Your task to perform on an android device: turn pop-ups off in chrome Image 0: 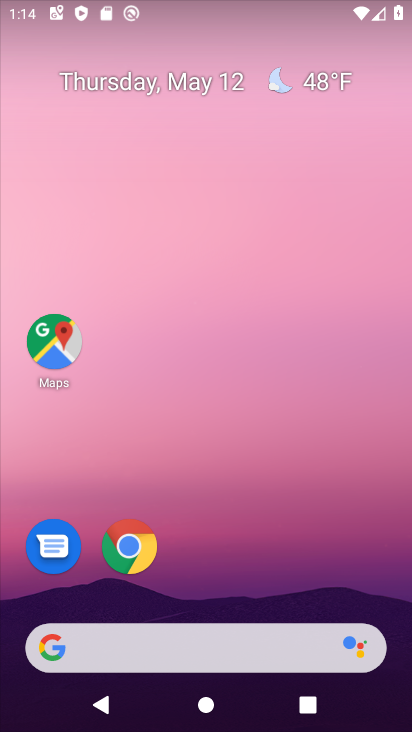
Step 0: click (134, 559)
Your task to perform on an android device: turn pop-ups off in chrome Image 1: 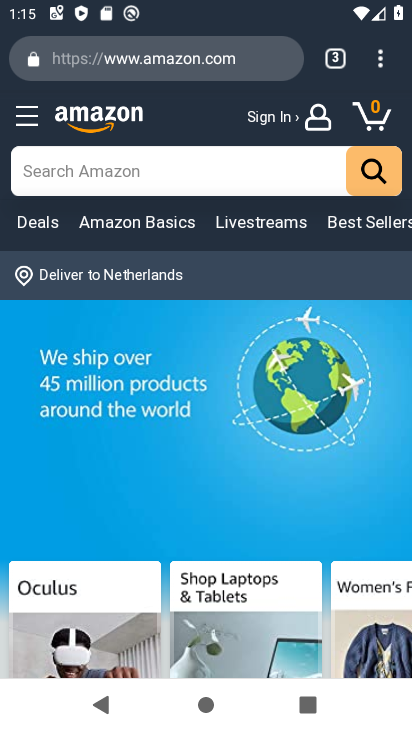
Step 1: drag from (379, 52) to (209, 582)
Your task to perform on an android device: turn pop-ups off in chrome Image 2: 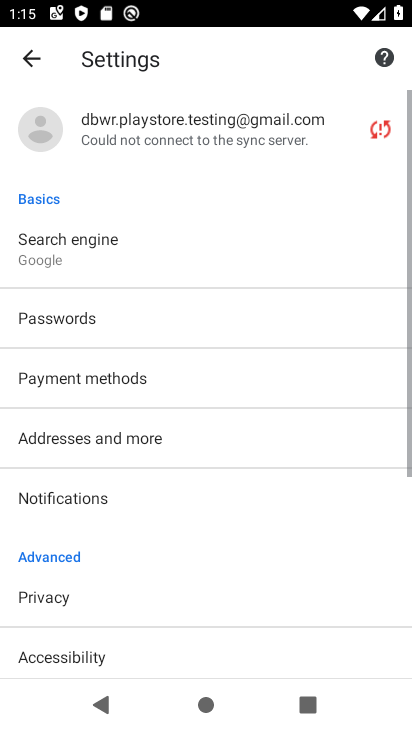
Step 2: drag from (154, 628) to (320, 187)
Your task to perform on an android device: turn pop-ups off in chrome Image 3: 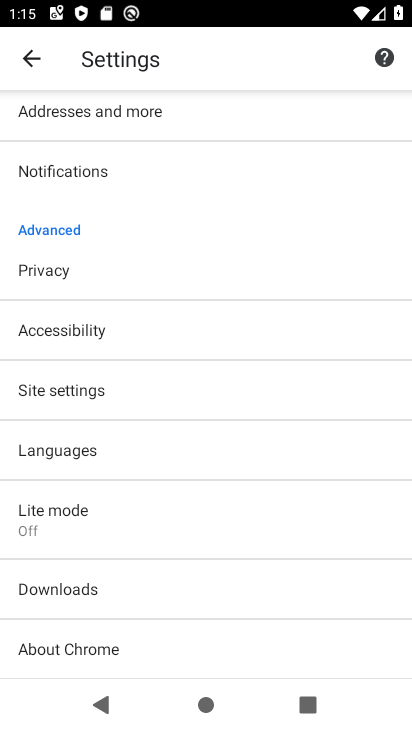
Step 3: click (93, 395)
Your task to perform on an android device: turn pop-ups off in chrome Image 4: 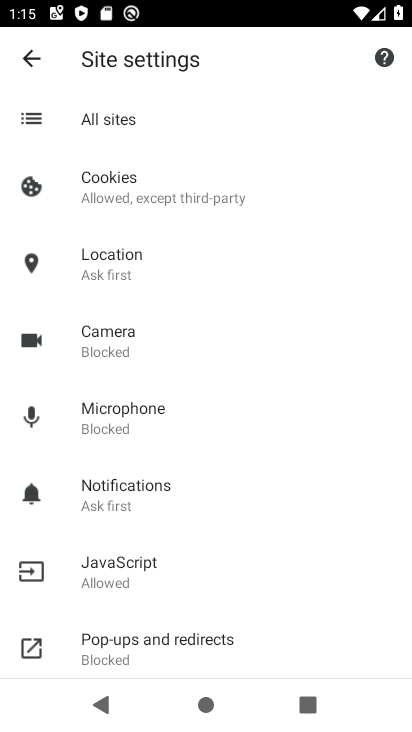
Step 4: click (123, 647)
Your task to perform on an android device: turn pop-ups off in chrome Image 5: 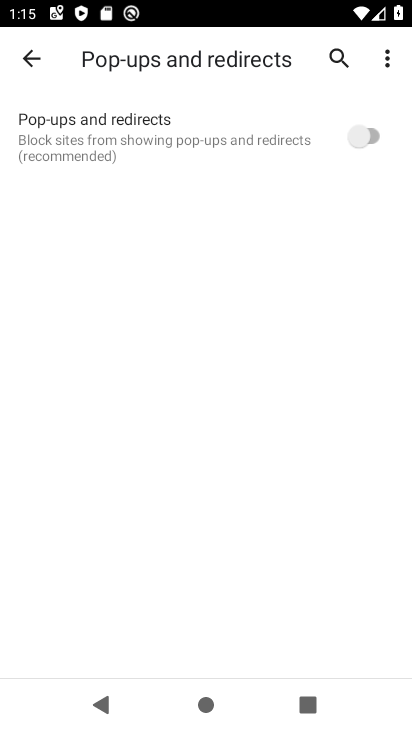
Step 5: task complete